Your task to perform on an android device: turn on priority inbox in the gmail app Image 0: 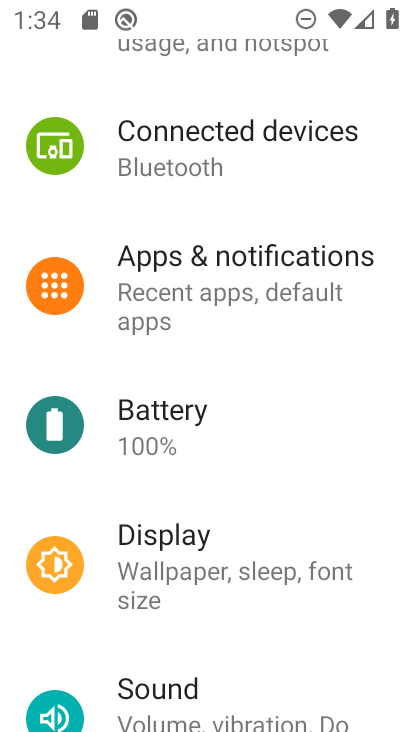
Step 0: press home button
Your task to perform on an android device: turn on priority inbox in the gmail app Image 1: 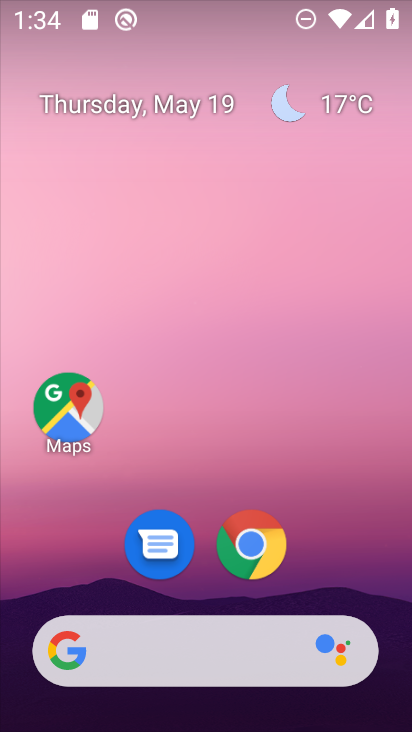
Step 1: drag from (205, 727) to (217, 220)
Your task to perform on an android device: turn on priority inbox in the gmail app Image 2: 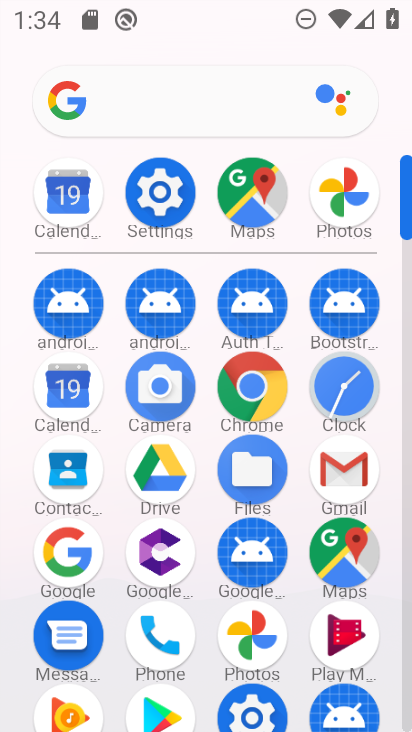
Step 2: click (347, 475)
Your task to perform on an android device: turn on priority inbox in the gmail app Image 3: 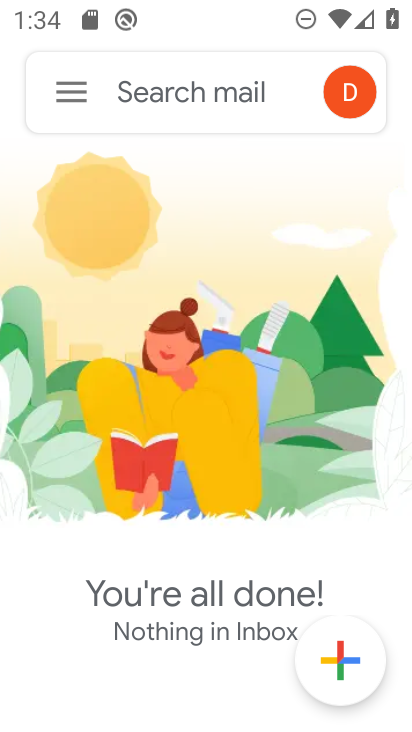
Step 3: click (74, 96)
Your task to perform on an android device: turn on priority inbox in the gmail app Image 4: 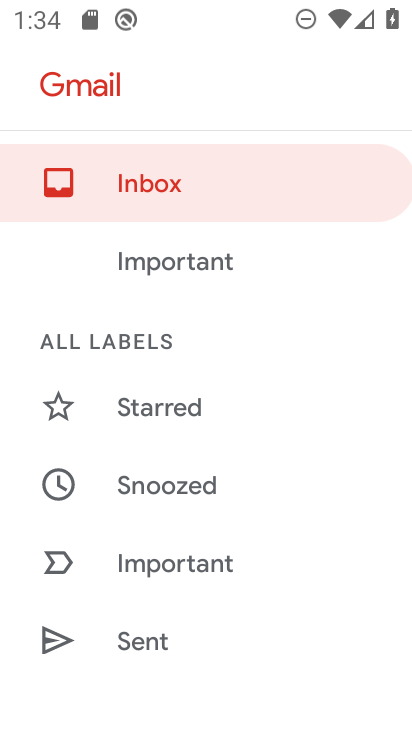
Step 4: drag from (153, 633) to (161, 207)
Your task to perform on an android device: turn on priority inbox in the gmail app Image 5: 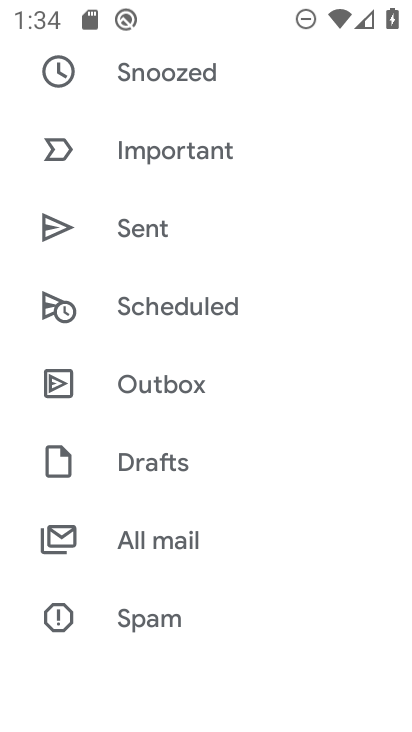
Step 5: drag from (159, 657) to (161, 283)
Your task to perform on an android device: turn on priority inbox in the gmail app Image 6: 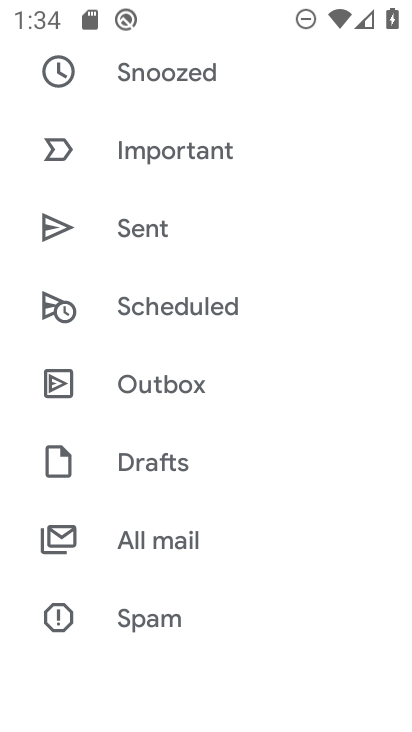
Step 6: drag from (157, 589) to (157, 302)
Your task to perform on an android device: turn on priority inbox in the gmail app Image 7: 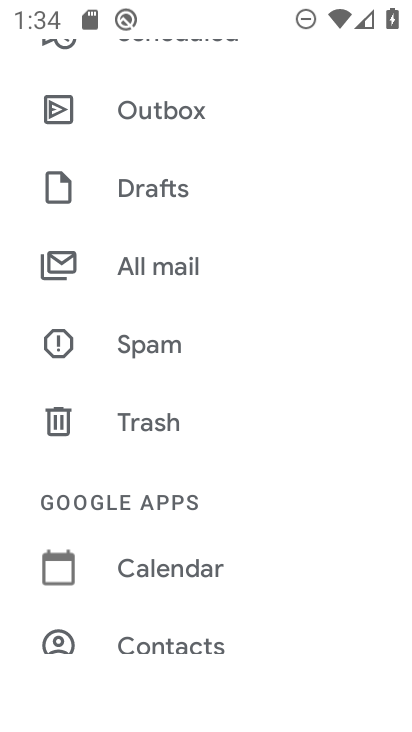
Step 7: drag from (136, 616) to (143, 266)
Your task to perform on an android device: turn on priority inbox in the gmail app Image 8: 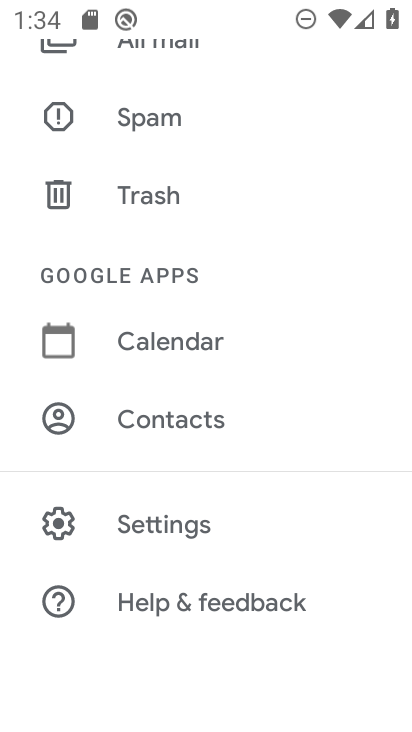
Step 8: click (146, 516)
Your task to perform on an android device: turn on priority inbox in the gmail app Image 9: 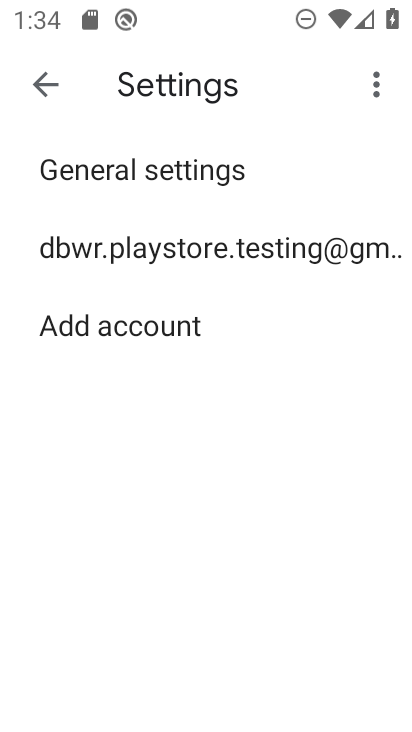
Step 9: click (162, 245)
Your task to perform on an android device: turn on priority inbox in the gmail app Image 10: 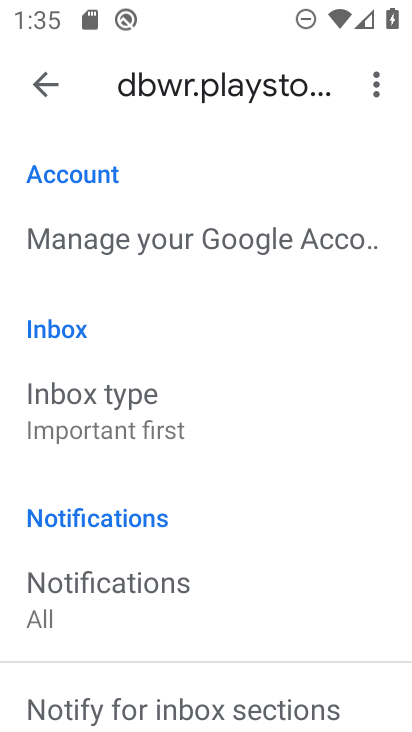
Step 10: click (69, 409)
Your task to perform on an android device: turn on priority inbox in the gmail app Image 11: 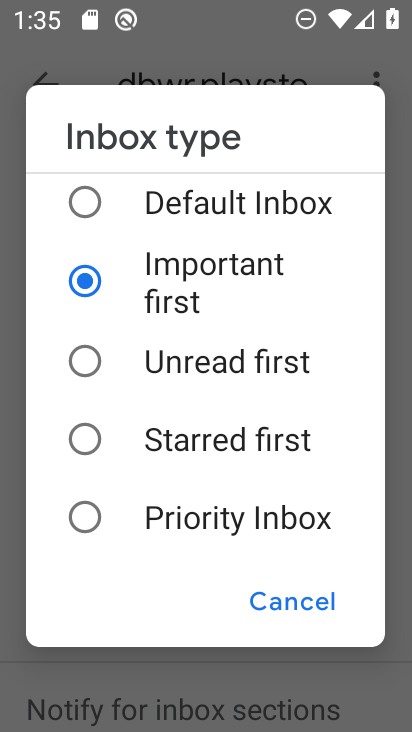
Step 11: click (76, 512)
Your task to perform on an android device: turn on priority inbox in the gmail app Image 12: 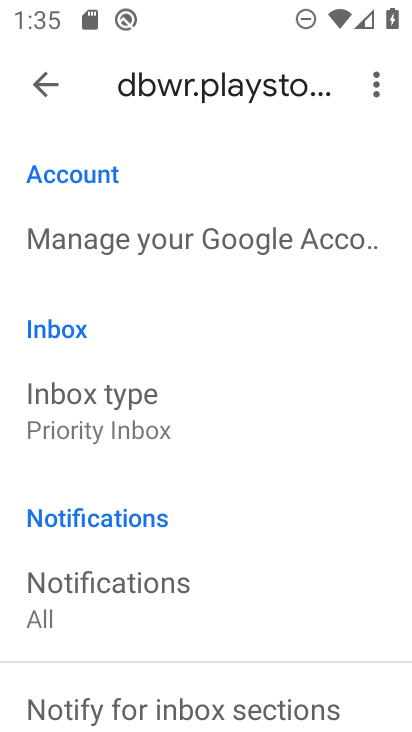
Step 12: task complete